Your task to perform on an android device: Open calendar and show me the fourth week of next month Image 0: 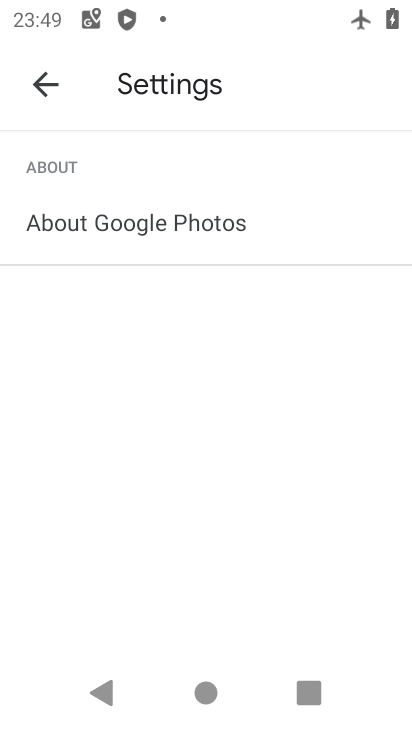
Step 0: press home button
Your task to perform on an android device: Open calendar and show me the fourth week of next month Image 1: 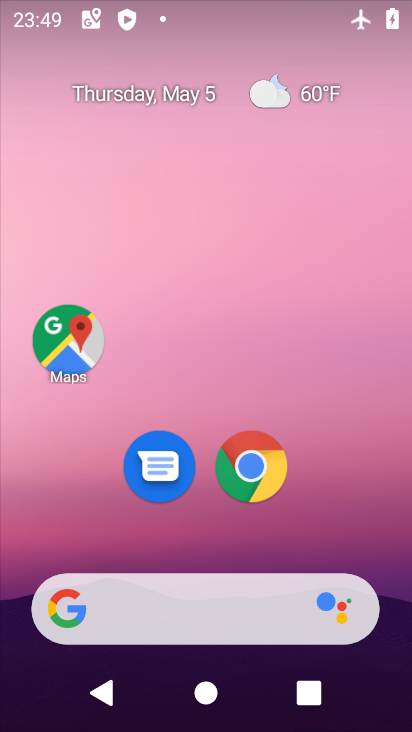
Step 1: drag from (179, 572) to (279, 163)
Your task to perform on an android device: Open calendar and show me the fourth week of next month Image 2: 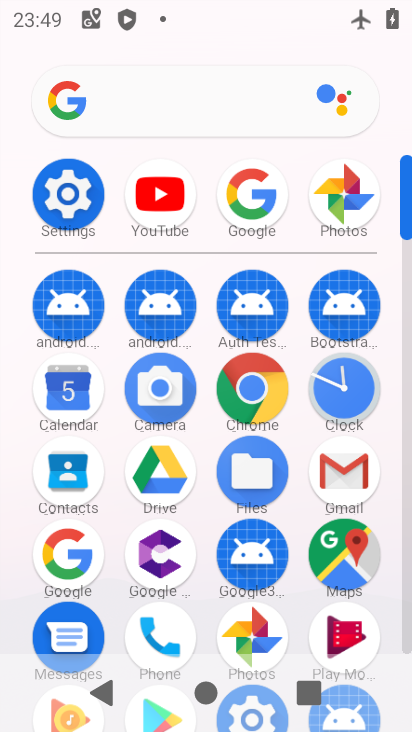
Step 2: click (58, 383)
Your task to perform on an android device: Open calendar and show me the fourth week of next month Image 3: 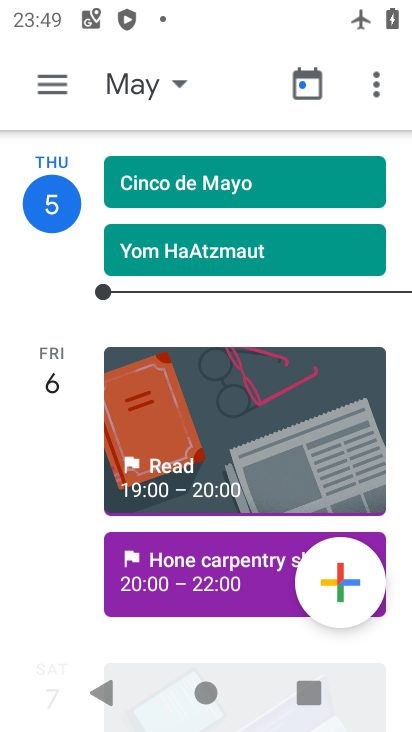
Step 3: click (136, 80)
Your task to perform on an android device: Open calendar and show me the fourth week of next month Image 4: 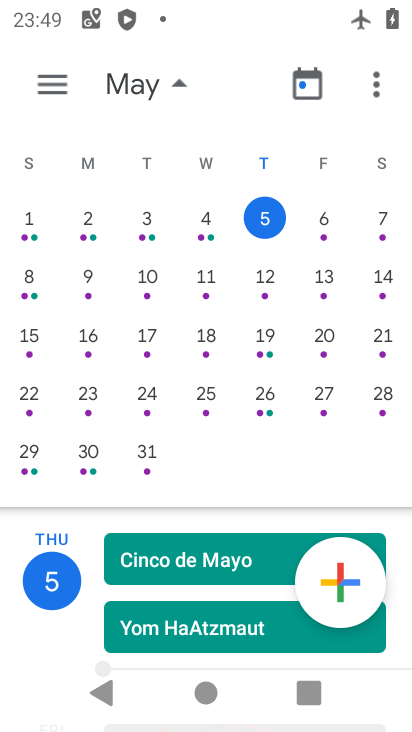
Step 4: drag from (369, 432) to (7, 425)
Your task to perform on an android device: Open calendar and show me the fourth week of next month Image 5: 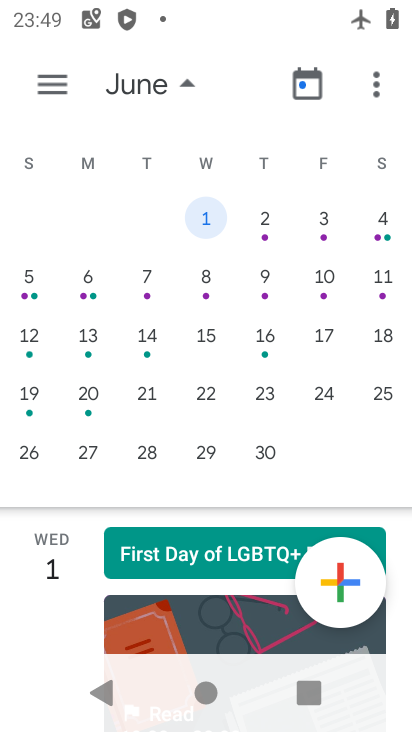
Step 5: click (31, 399)
Your task to perform on an android device: Open calendar and show me the fourth week of next month Image 6: 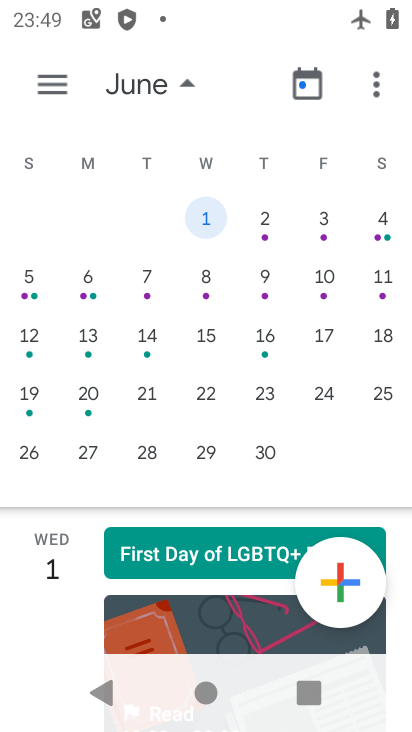
Step 6: click (41, 399)
Your task to perform on an android device: Open calendar and show me the fourth week of next month Image 7: 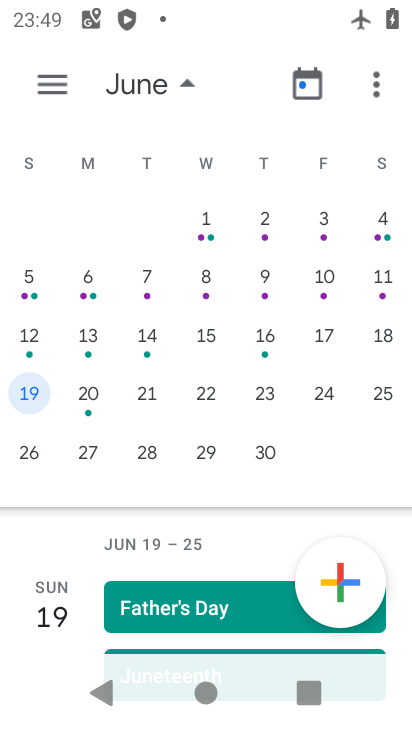
Step 7: task complete